Your task to perform on an android device: Open Google Maps and go to "Timeline" Image 0: 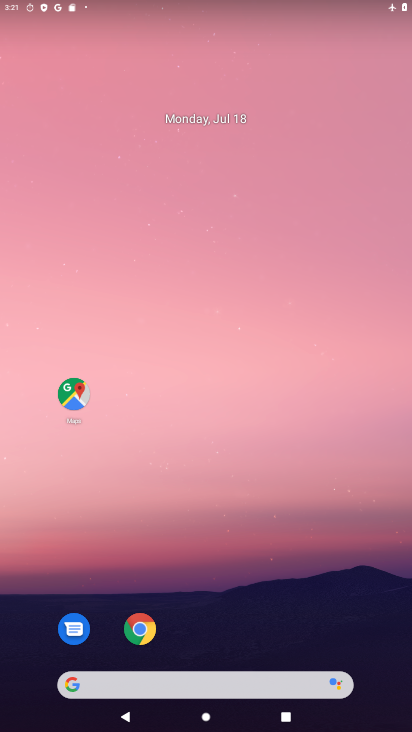
Step 0: click (79, 397)
Your task to perform on an android device: Open Google Maps and go to "Timeline" Image 1: 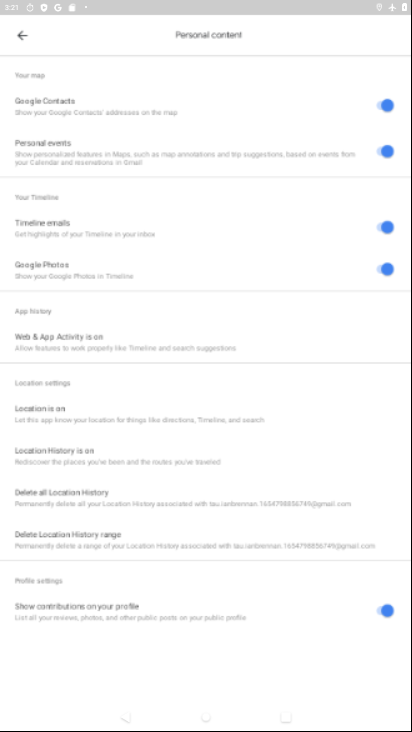
Step 1: click (21, 34)
Your task to perform on an android device: Open Google Maps and go to "Timeline" Image 2: 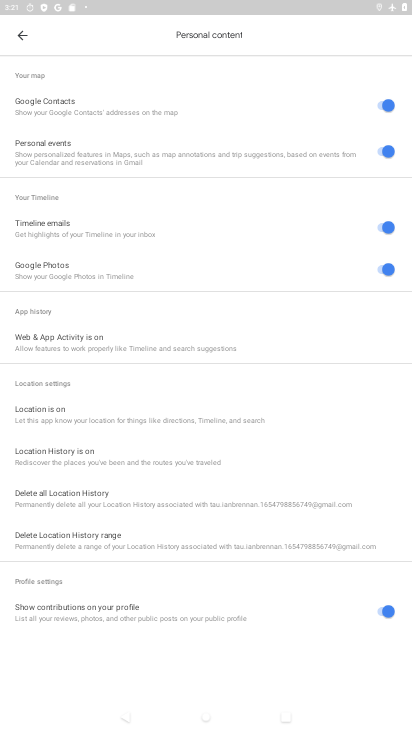
Step 2: click (24, 33)
Your task to perform on an android device: Open Google Maps and go to "Timeline" Image 3: 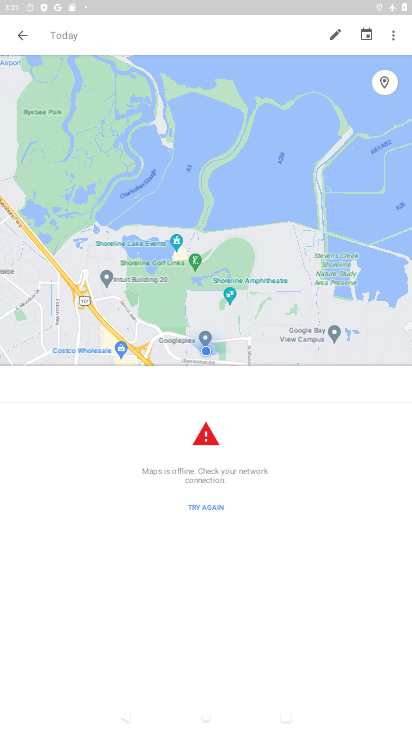
Step 3: click (24, 33)
Your task to perform on an android device: Open Google Maps and go to "Timeline" Image 4: 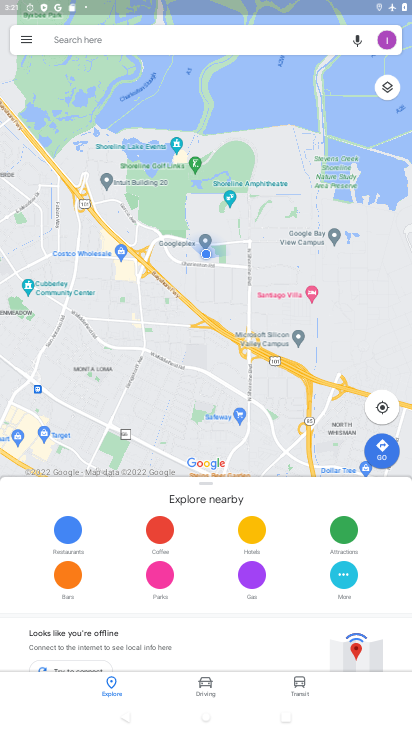
Step 4: drag from (24, 34) to (9, 264)
Your task to perform on an android device: Open Google Maps and go to "Timeline" Image 5: 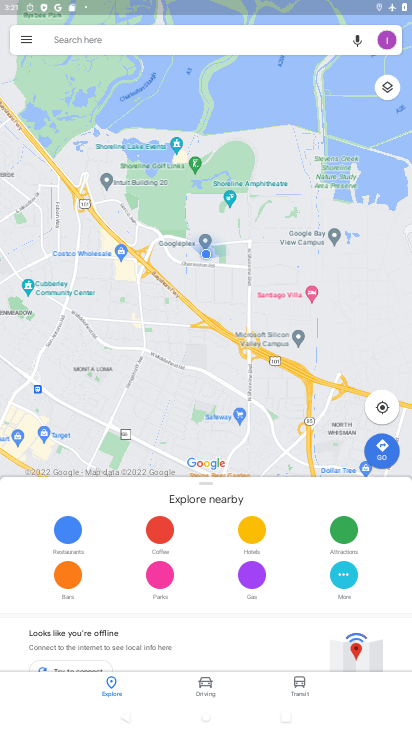
Step 5: click (24, 40)
Your task to perform on an android device: Open Google Maps and go to "Timeline" Image 6: 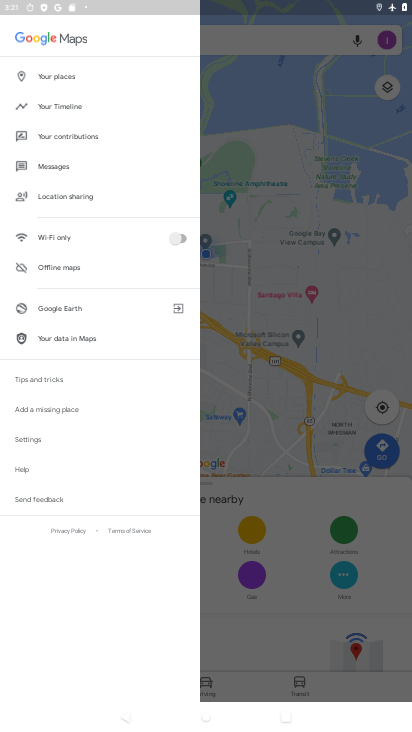
Step 6: click (47, 111)
Your task to perform on an android device: Open Google Maps and go to "Timeline" Image 7: 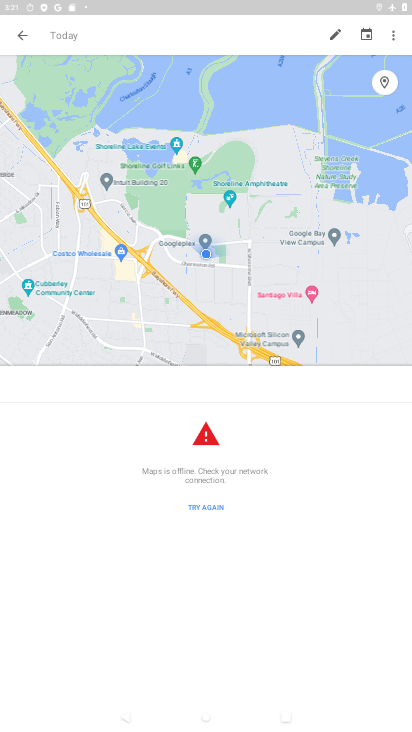
Step 7: task complete